Your task to perform on an android device: Open the phone app and click the voicemail tab. Image 0: 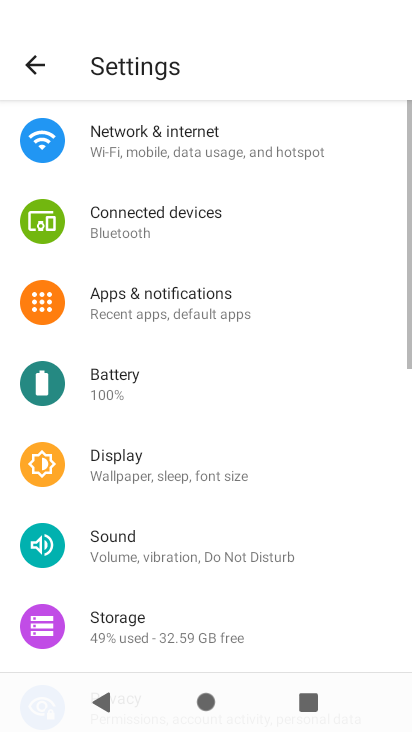
Step 0: press home button
Your task to perform on an android device: Open the phone app and click the voicemail tab. Image 1: 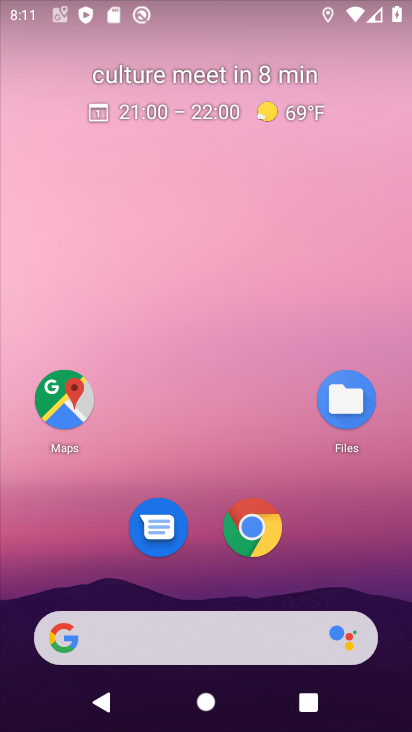
Step 1: drag from (208, 567) to (138, 65)
Your task to perform on an android device: Open the phone app and click the voicemail tab. Image 2: 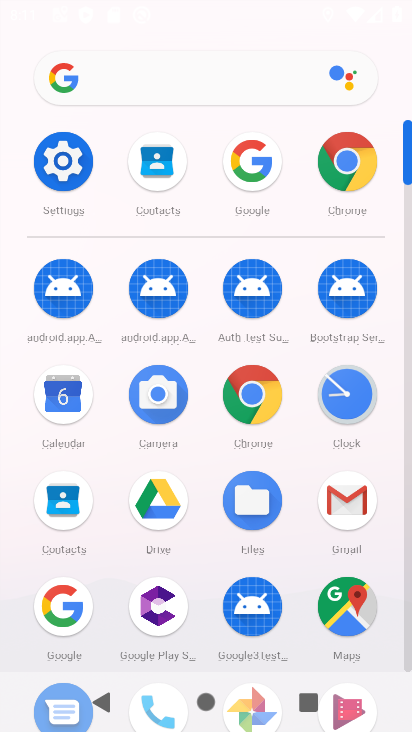
Step 2: drag from (110, 516) to (106, 275)
Your task to perform on an android device: Open the phone app and click the voicemail tab. Image 3: 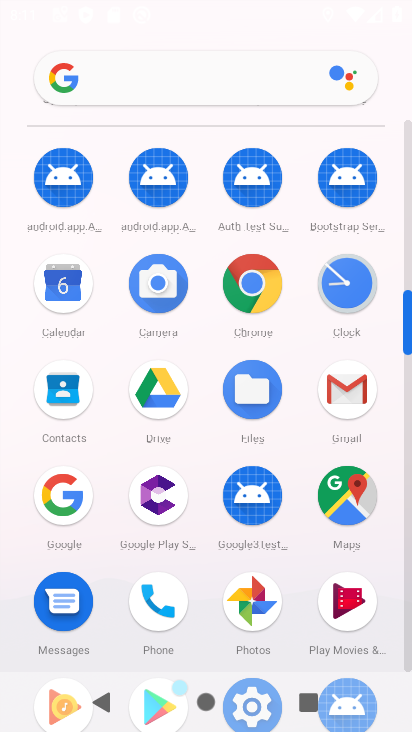
Step 3: click (156, 596)
Your task to perform on an android device: Open the phone app and click the voicemail tab. Image 4: 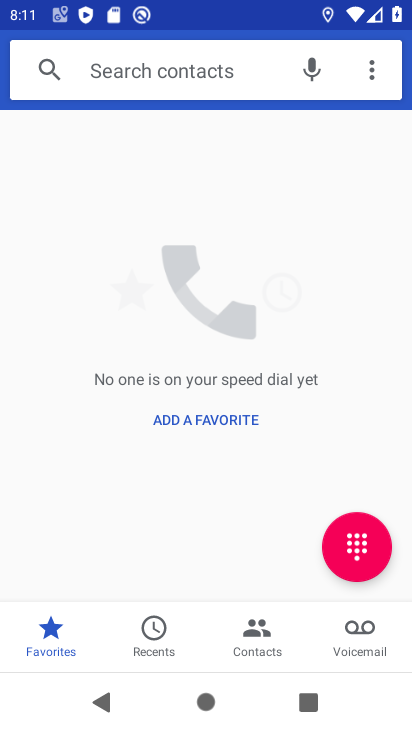
Step 4: click (349, 635)
Your task to perform on an android device: Open the phone app and click the voicemail tab. Image 5: 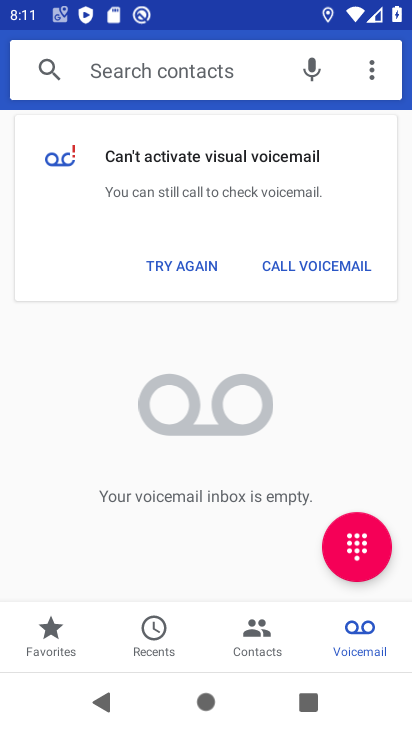
Step 5: task complete